Your task to perform on an android device: open sync settings in chrome Image 0: 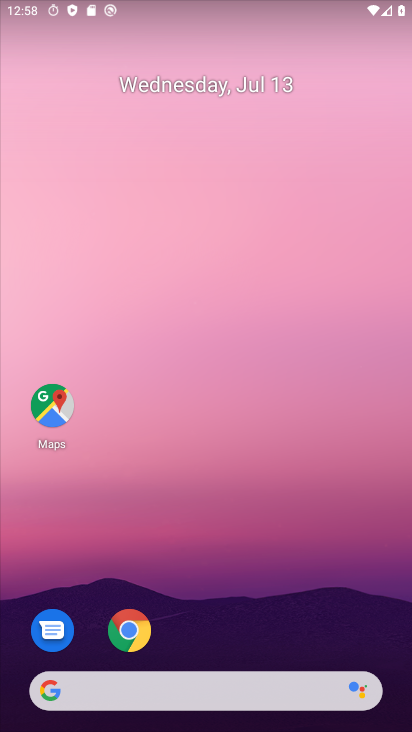
Step 0: drag from (358, 597) to (316, 72)
Your task to perform on an android device: open sync settings in chrome Image 1: 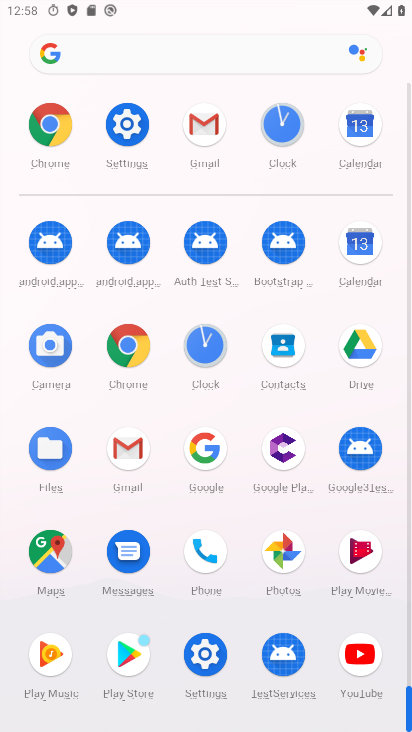
Step 1: click (55, 132)
Your task to perform on an android device: open sync settings in chrome Image 2: 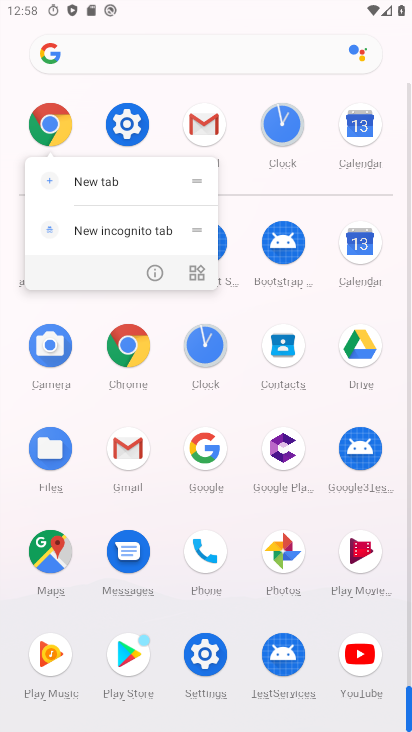
Step 2: click (55, 131)
Your task to perform on an android device: open sync settings in chrome Image 3: 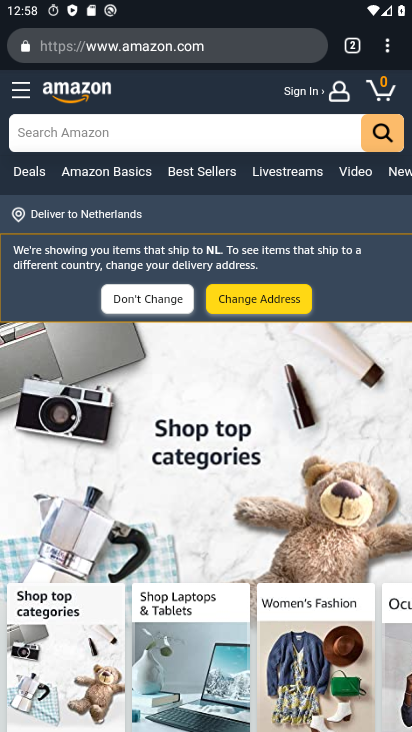
Step 3: drag from (399, 43) to (237, 554)
Your task to perform on an android device: open sync settings in chrome Image 4: 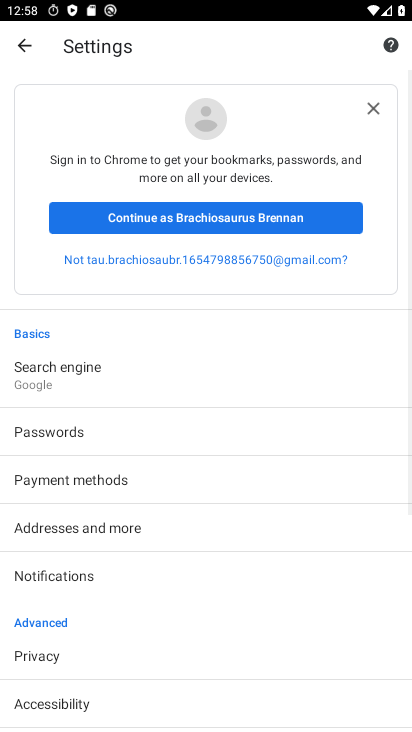
Step 4: drag from (189, 575) to (176, 166)
Your task to perform on an android device: open sync settings in chrome Image 5: 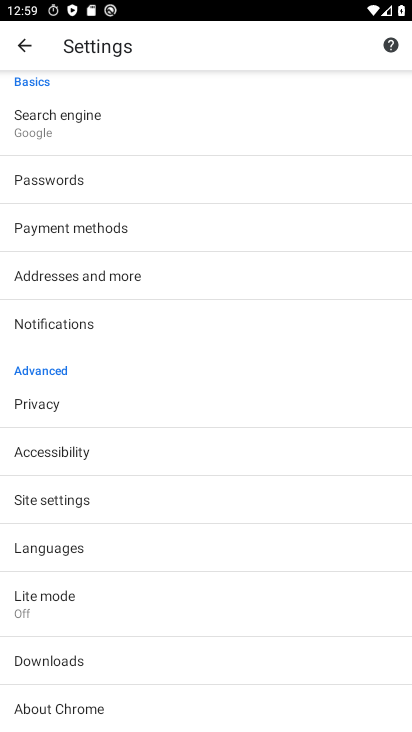
Step 5: drag from (212, 612) to (245, 265)
Your task to perform on an android device: open sync settings in chrome Image 6: 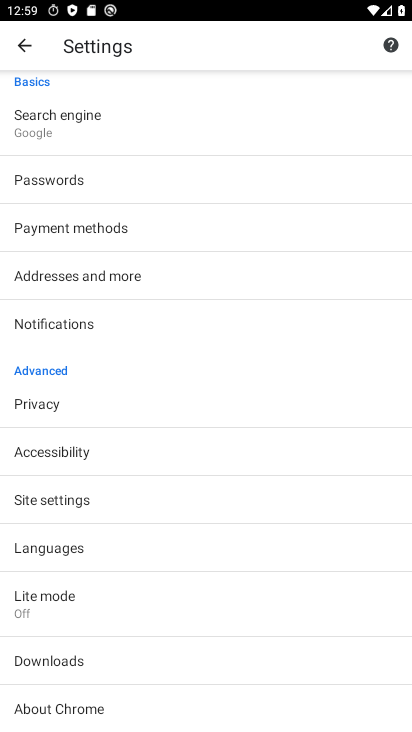
Step 6: click (176, 494)
Your task to perform on an android device: open sync settings in chrome Image 7: 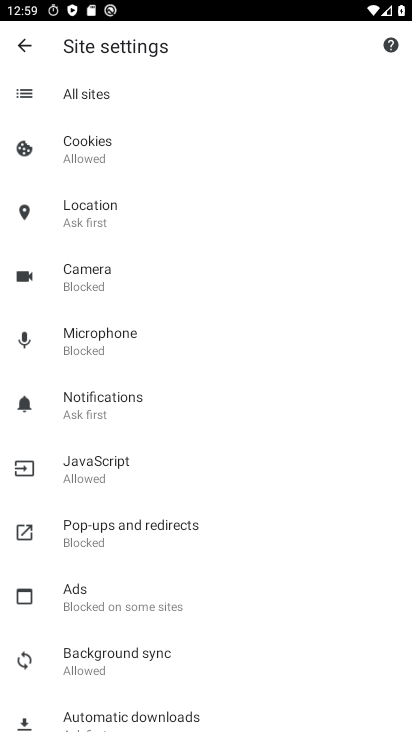
Step 7: click (141, 646)
Your task to perform on an android device: open sync settings in chrome Image 8: 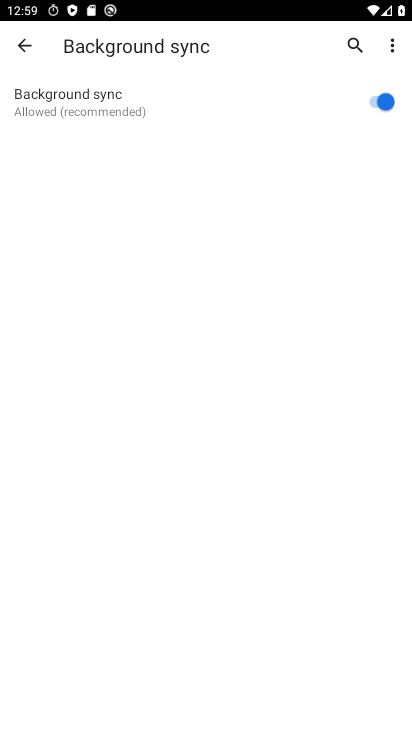
Step 8: task complete